Your task to perform on an android device: open app "Walmart Shopping & Grocery" (install if not already installed) and enter user name: "Hans@icloud.com" and password: "executing" Image 0: 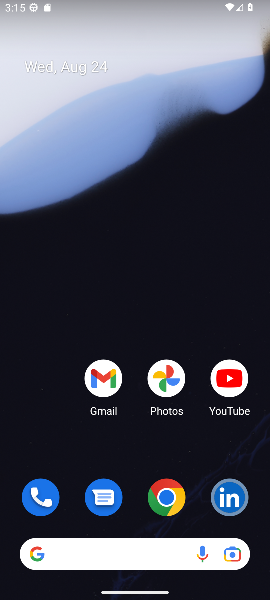
Step 0: drag from (114, 555) to (159, 238)
Your task to perform on an android device: open app "Walmart Shopping & Grocery" (install if not already installed) and enter user name: "Hans@icloud.com" and password: "executing" Image 1: 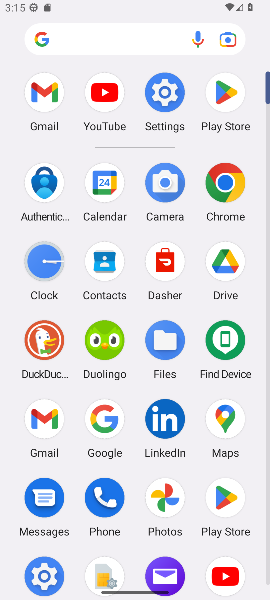
Step 1: click (222, 89)
Your task to perform on an android device: open app "Walmart Shopping & Grocery" (install if not already installed) and enter user name: "Hans@icloud.com" and password: "executing" Image 2: 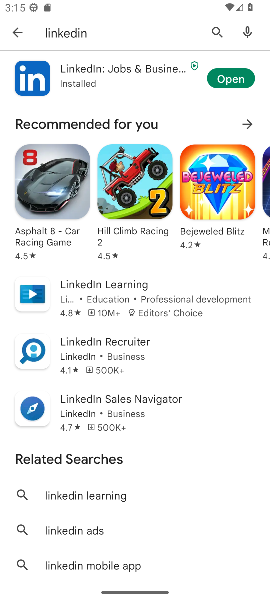
Step 2: press back button
Your task to perform on an android device: open app "Walmart Shopping & Grocery" (install if not already installed) and enter user name: "Hans@icloud.com" and password: "executing" Image 3: 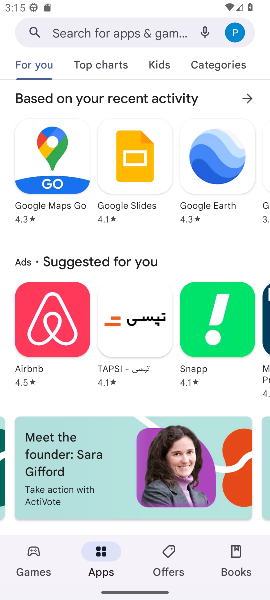
Step 3: click (166, 36)
Your task to perform on an android device: open app "Walmart Shopping & Grocery" (install if not already installed) and enter user name: "Hans@icloud.com" and password: "executing" Image 4: 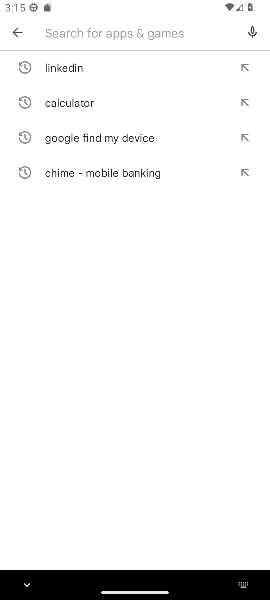
Step 4: type "Walmart Shopping & Grocery"
Your task to perform on an android device: open app "Walmart Shopping & Grocery" (install if not already installed) and enter user name: "Hans@icloud.com" and password: "executing" Image 5: 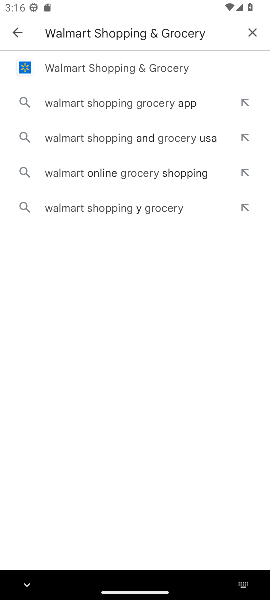
Step 5: click (157, 69)
Your task to perform on an android device: open app "Walmart Shopping & Grocery" (install if not already installed) and enter user name: "Hans@icloud.com" and password: "executing" Image 6: 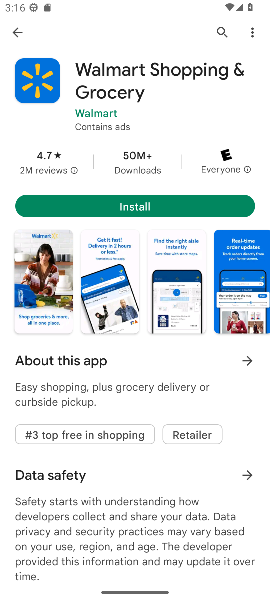
Step 6: click (121, 208)
Your task to perform on an android device: open app "Walmart Shopping & Grocery" (install if not already installed) and enter user name: "Hans@icloud.com" and password: "executing" Image 7: 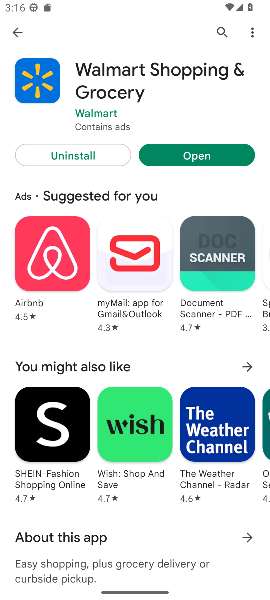
Step 7: click (198, 159)
Your task to perform on an android device: open app "Walmart Shopping & Grocery" (install if not already installed) and enter user name: "Hans@icloud.com" and password: "executing" Image 8: 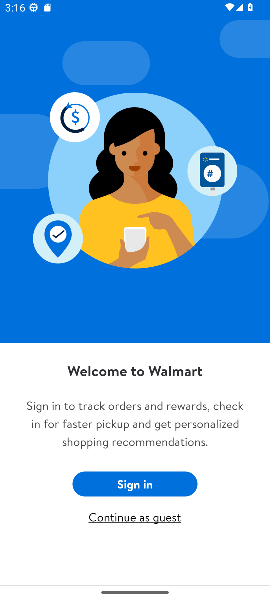
Step 8: click (138, 485)
Your task to perform on an android device: open app "Walmart Shopping & Grocery" (install if not already installed) and enter user name: "Hans@icloud.com" and password: "executing" Image 9: 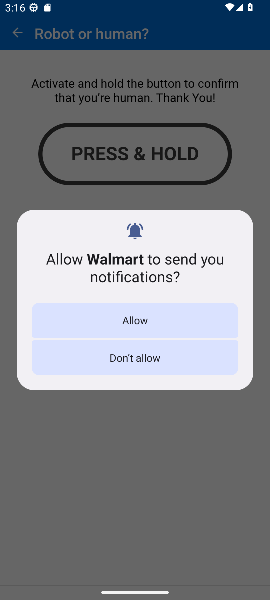
Step 9: click (137, 325)
Your task to perform on an android device: open app "Walmart Shopping & Grocery" (install if not already installed) and enter user name: "Hans@icloud.com" and password: "executing" Image 10: 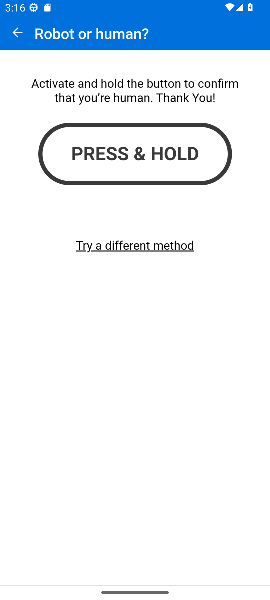
Step 10: click (131, 161)
Your task to perform on an android device: open app "Walmart Shopping & Grocery" (install if not already installed) and enter user name: "Hans@icloud.com" and password: "executing" Image 11: 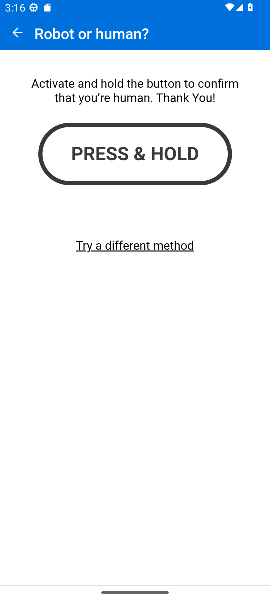
Step 11: click (139, 150)
Your task to perform on an android device: open app "Walmart Shopping & Grocery" (install if not already installed) and enter user name: "Hans@icloud.com" and password: "executing" Image 12: 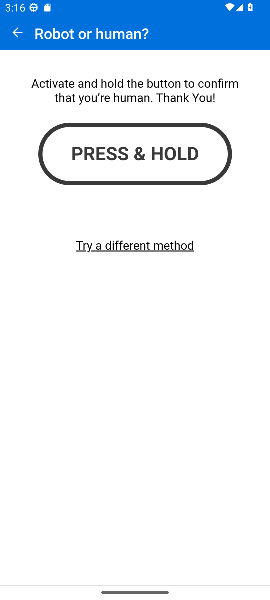
Step 12: click (139, 150)
Your task to perform on an android device: open app "Walmart Shopping & Grocery" (install if not already installed) and enter user name: "Hans@icloud.com" and password: "executing" Image 13: 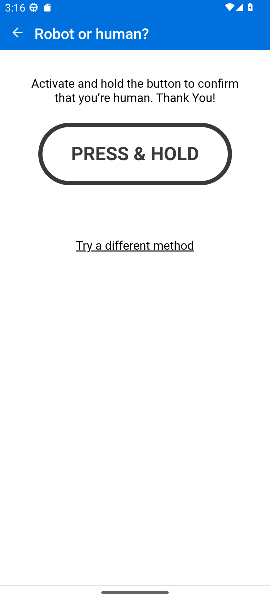
Step 13: click (139, 150)
Your task to perform on an android device: open app "Walmart Shopping & Grocery" (install if not already installed) and enter user name: "Hans@icloud.com" and password: "executing" Image 14: 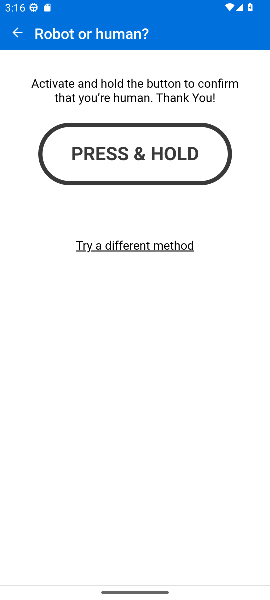
Step 14: click (139, 150)
Your task to perform on an android device: open app "Walmart Shopping & Grocery" (install if not already installed) and enter user name: "Hans@icloud.com" and password: "executing" Image 15: 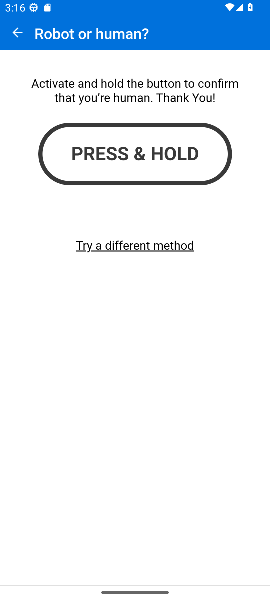
Step 15: click (139, 150)
Your task to perform on an android device: open app "Walmart Shopping & Grocery" (install if not already installed) and enter user name: "Hans@icloud.com" and password: "executing" Image 16: 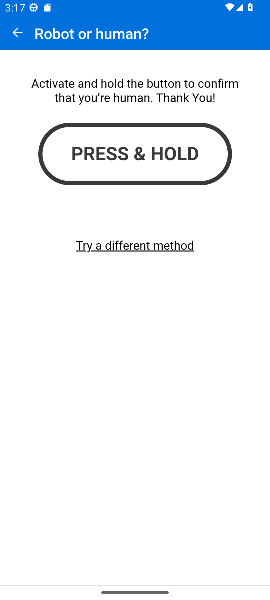
Step 16: click (136, 251)
Your task to perform on an android device: open app "Walmart Shopping & Grocery" (install if not already installed) and enter user name: "Hans@icloud.com" and password: "executing" Image 17: 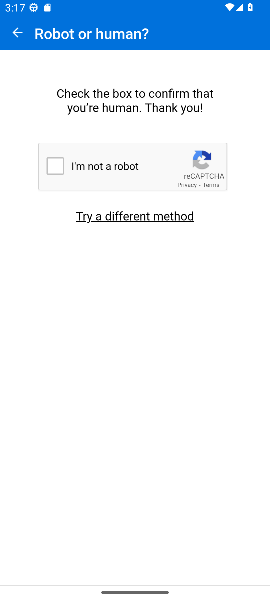
Step 17: click (56, 171)
Your task to perform on an android device: open app "Walmart Shopping & Grocery" (install if not already installed) and enter user name: "Hans@icloud.com" and password: "executing" Image 18: 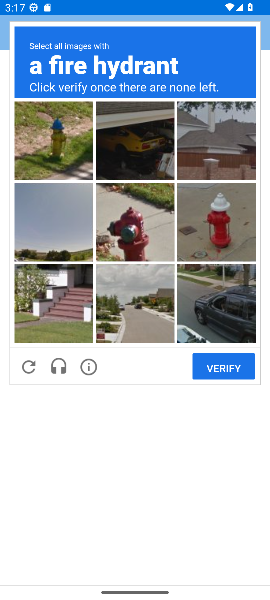
Step 18: click (144, 235)
Your task to perform on an android device: open app "Walmart Shopping & Grocery" (install if not already installed) and enter user name: "Hans@icloud.com" and password: "executing" Image 19: 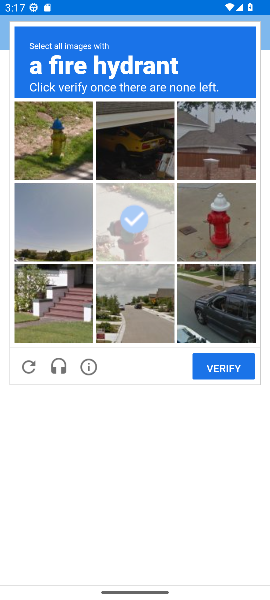
Step 19: click (43, 138)
Your task to perform on an android device: open app "Walmart Shopping & Grocery" (install if not already installed) and enter user name: "Hans@icloud.com" and password: "executing" Image 20: 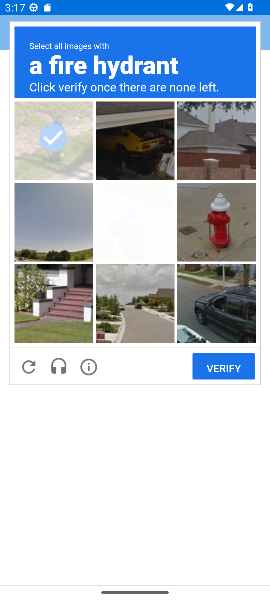
Step 20: click (227, 243)
Your task to perform on an android device: open app "Walmart Shopping & Grocery" (install if not already installed) and enter user name: "Hans@icloud.com" and password: "executing" Image 21: 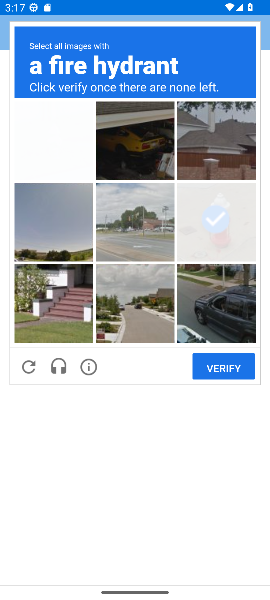
Step 21: click (228, 370)
Your task to perform on an android device: open app "Walmart Shopping & Grocery" (install if not already installed) and enter user name: "Hans@icloud.com" and password: "executing" Image 22: 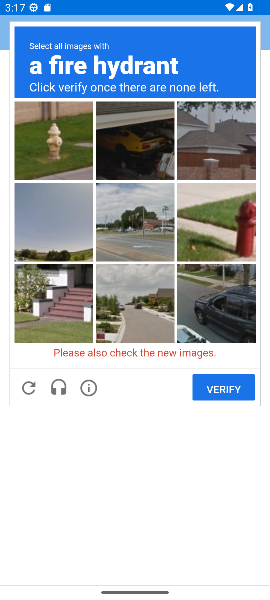
Step 22: click (209, 231)
Your task to perform on an android device: open app "Walmart Shopping & Grocery" (install if not already installed) and enter user name: "Hans@icloud.com" and password: "executing" Image 23: 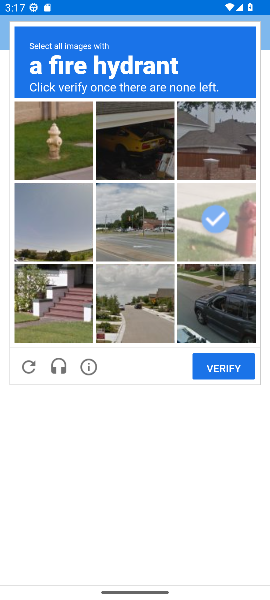
Step 23: click (33, 125)
Your task to perform on an android device: open app "Walmart Shopping & Grocery" (install if not already installed) and enter user name: "Hans@icloud.com" and password: "executing" Image 24: 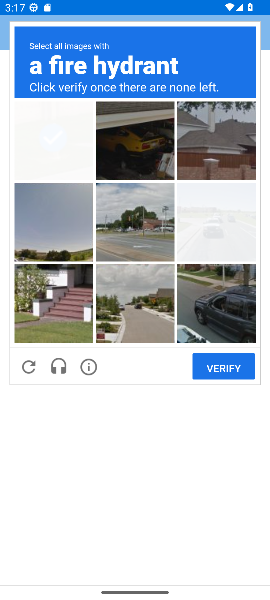
Step 24: click (219, 372)
Your task to perform on an android device: open app "Walmart Shopping & Grocery" (install if not already installed) and enter user name: "Hans@icloud.com" and password: "executing" Image 25: 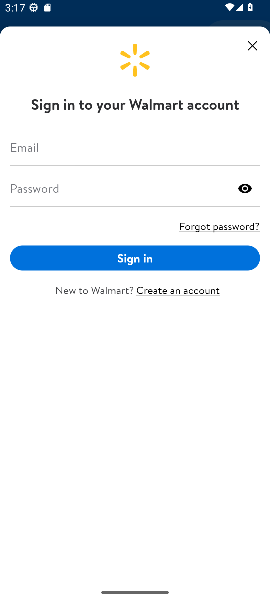
Step 25: click (138, 156)
Your task to perform on an android device: open app "Walmart Shopping & Grocery" (install if not already installed) and enter user name: "Hans@icloud.com" and password: "executing" Image 26: 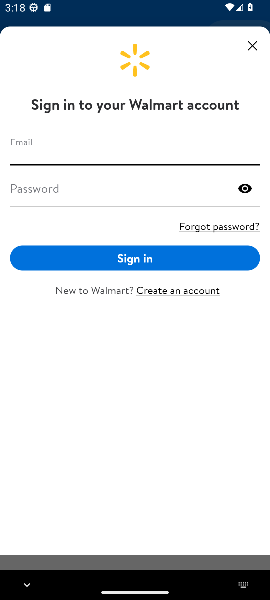
Step 26: type "Hans@icloud.com"
Your task to perform on an android device: open app "Walmart Shopping & Grocery" (install if not already installed) and enter user name: "Hans@icloud.com" and password: "executing" Image 27: 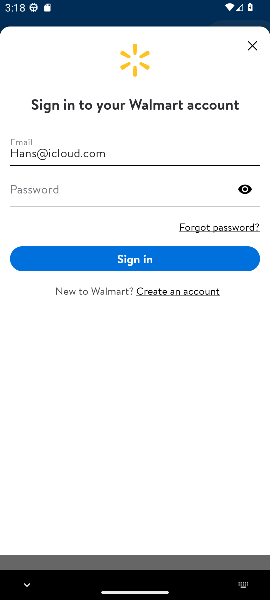
Step 27: click (126, 200)
Your task to perform on an android device: open app "Walmart Shopping & Grocery" (install if not already installed) and enter user name: "Hans@icloud.com" and password: "executing" Image 28: 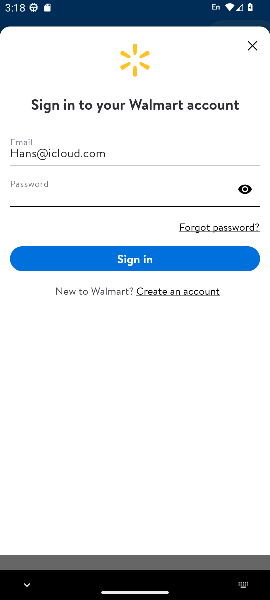
Step 28: type "executing"
Your task to perform on an android device: open app "Walmart Shopping & Grocery" (install if not already installed) and enter user name: "Hans@icloud.com" and password: "executing" Image 29: 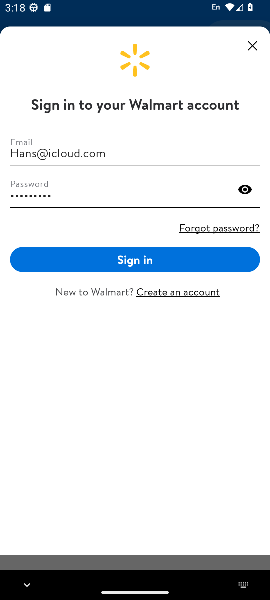
Step 29: task complete